Your task to perform on an android device: Open accessibility settings Image 0: 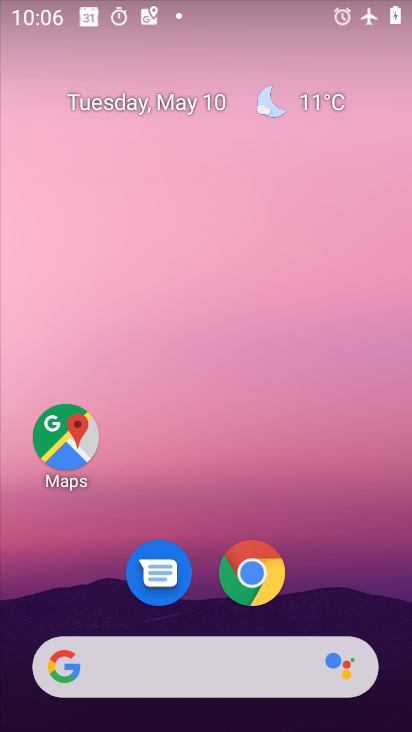
Step 0: drag from (323, 626) to (302, 0)
Your task to perform on an android device: Open accessibility settings Image 1: 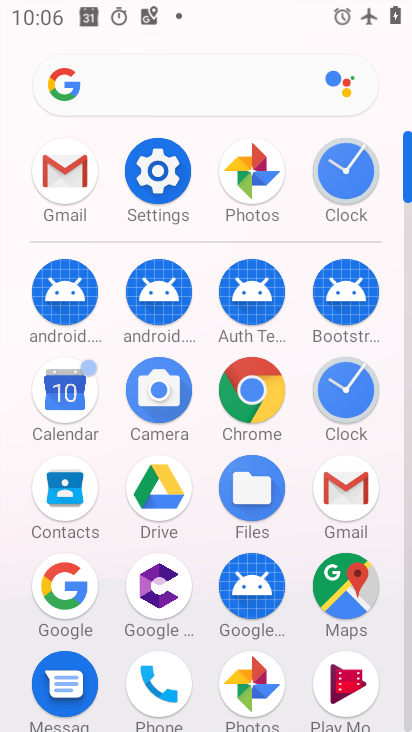
Step 1: click (157, 161)
Your task to perform on an android device: Open accessibility settings Image 2: 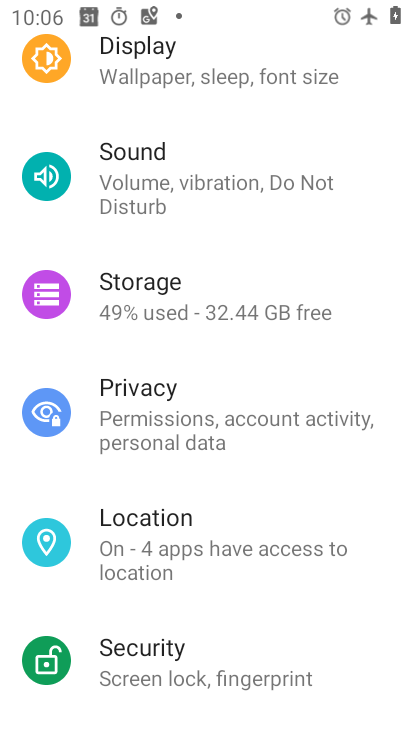
Step 2: drag from (304, 551) to (270, 122)
Your task to perform on an android device: Open accessibility settings Image 3: 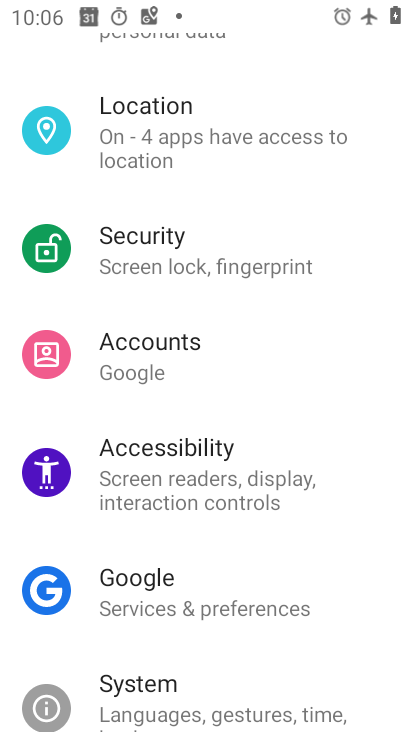
Step 3: click (197, 474)
Your task to perform on an android device: Open accessibility settings Image 4: 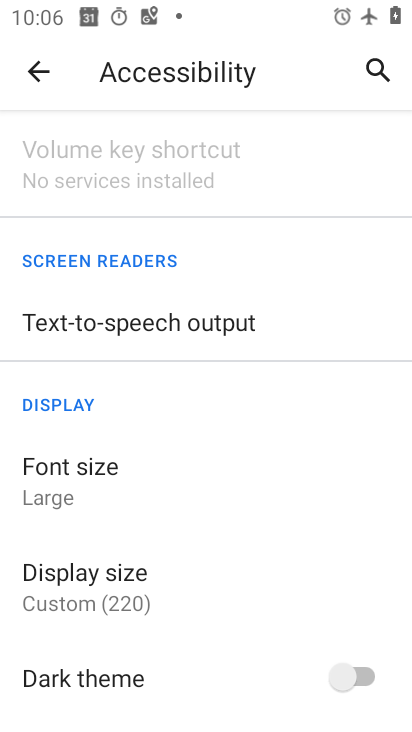
Step 4: task complete